Your task to perform on an android device: set default search engine in the chrome app Image 0: 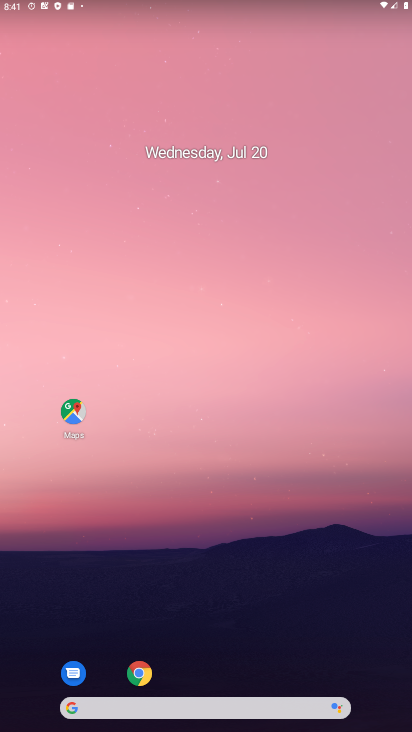
Step 0: drag from (389, 675) to (179, 53)
Your task to perform on an android device: set default search engine in the chrome app Image 1: 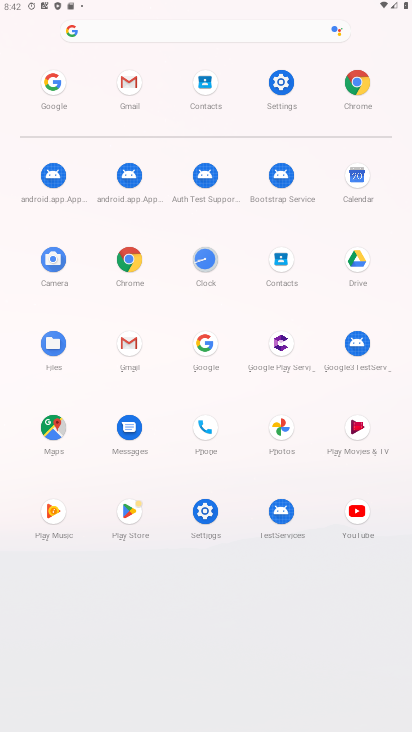
Step 1: click (116, 259)
Your task to perform on an android device: set default search engine in the chrome app Image 2: 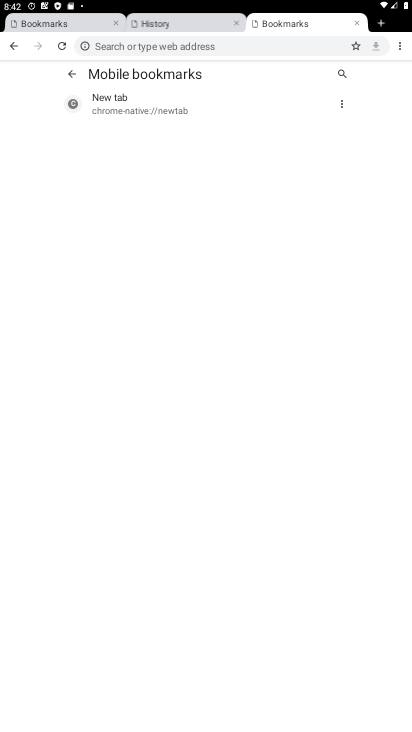
Step 2: click (396, 44)
Your task to perform on an android device: set default search engine in the chrome app Image 3: 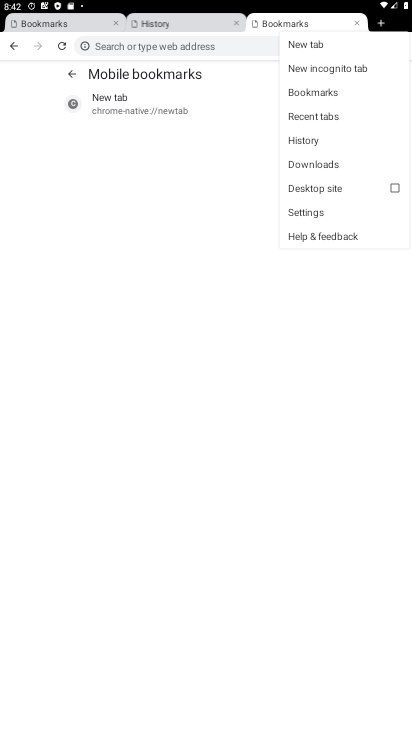
Step 3: click (306, 214)
Your task to perform on an android device: set default search engine in the chrome app Image 4: 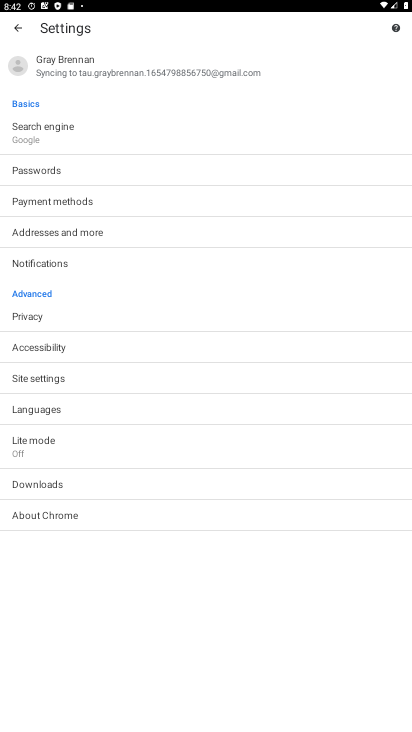
Step 4: click (62, 134)
Your task to perform on an android device: set default search engine in the chrome app Image 5: 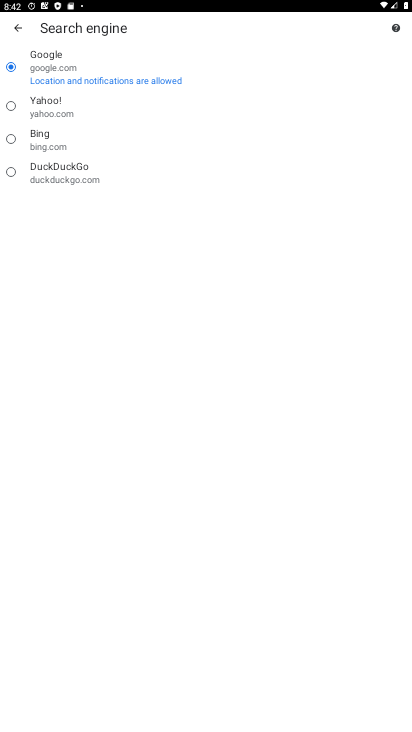
Step 5: click (48, 139)
Your task to perform on an android device: set default search engine in the chrome app Image 6: 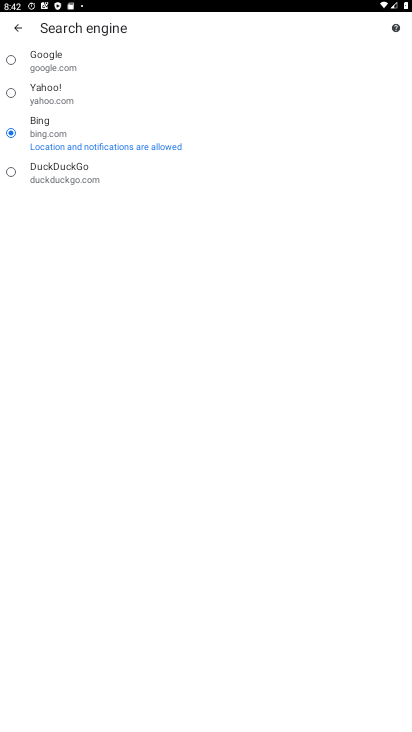
Step 6: task complete